Your task to perform on an android device: Search for sushi restaurants on Maps Image 0: 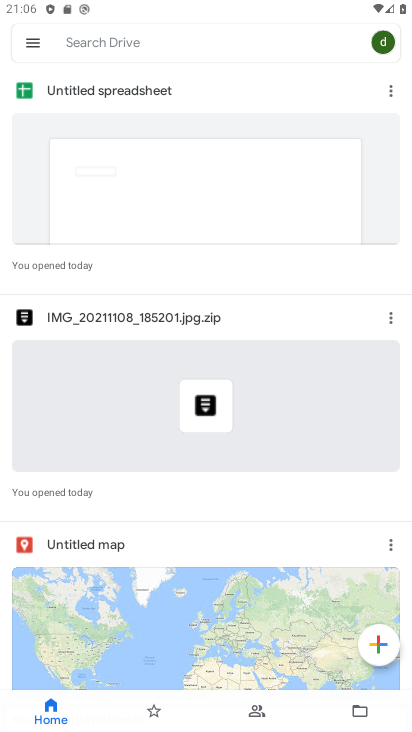
Step 0: press back button
Your task to perform on an android device: Search for sushi restaurants on Maps Image 1: 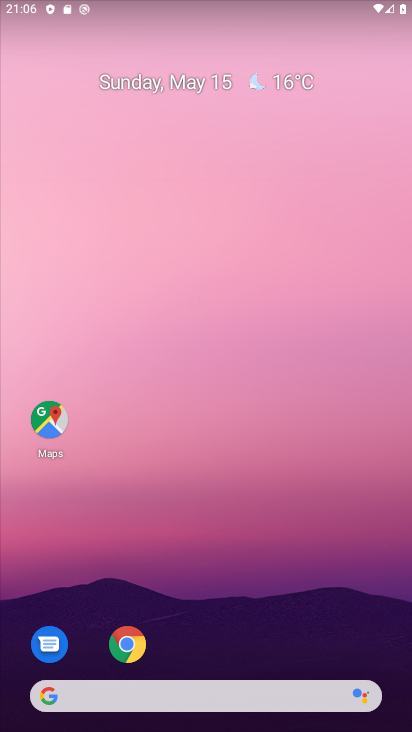
Step 1: click (51, 419)
Your task to perform on an android device: Search for sushi restaurants on Maps Image 2: 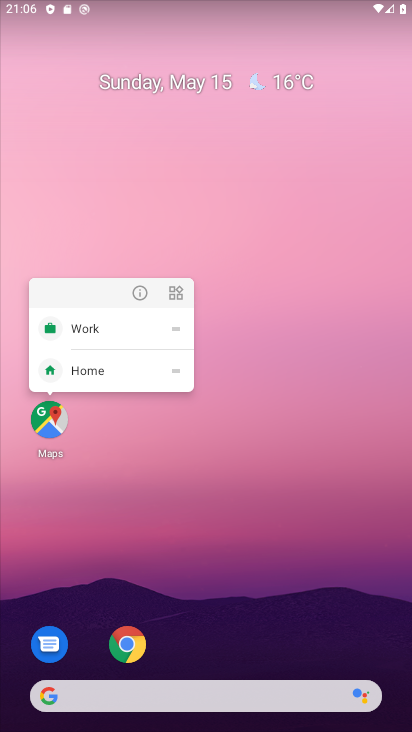
Step 2: click (47, 423)
Your task to perform on an android device: Search for sushi restaurants on Maps Image 3: 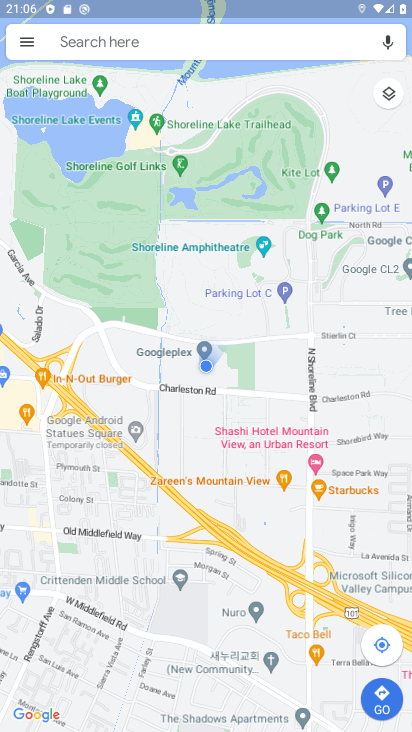
Step 3: click (185, 56)
Your task to perform on an android device: Search for sushi restaurants on Maps Image 4: 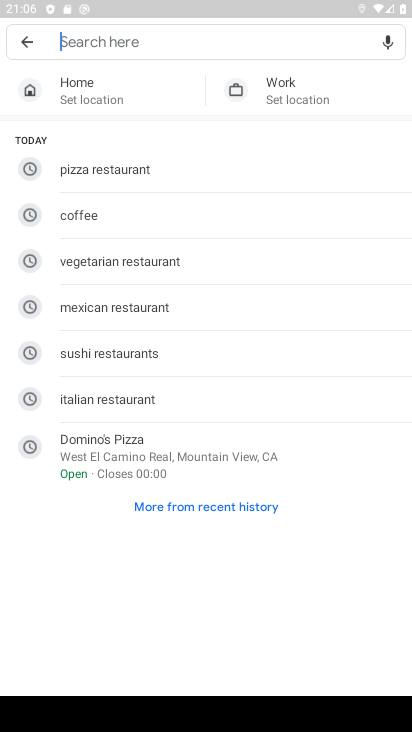
Step 4: click (105, 344)
Your task to perform on an android device: Search for sushi restaurants on Maps Image 5: 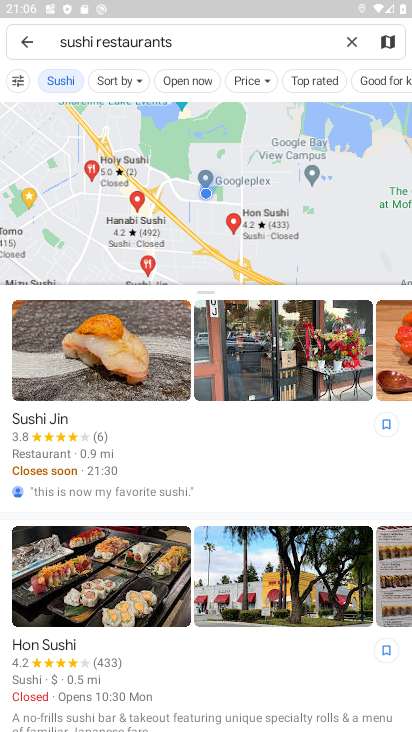
Step 5: task complete